Your task to perform on an android device: delete location history Image 0: 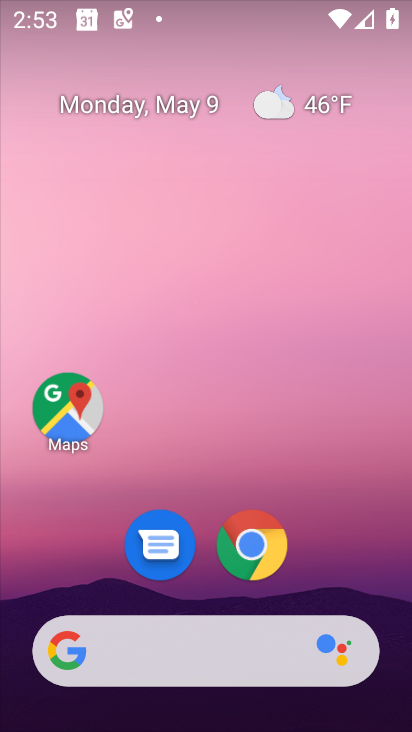
Step 0: drag from (193, 590) to (197, 251)
Your task to perform on an android device: delete location history Image 1: 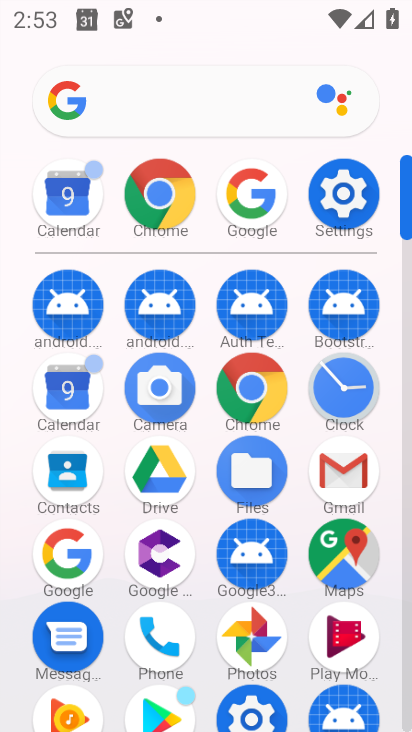
Step 1: click (325, 545)
Your task to perform on an android device: delete location history Image 2: 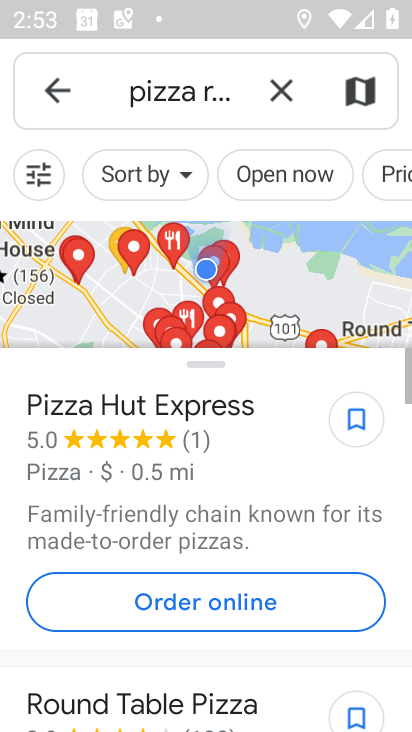
Step 2: click (45, 81)
Your task to perform on an android device: delete location history Image 3: 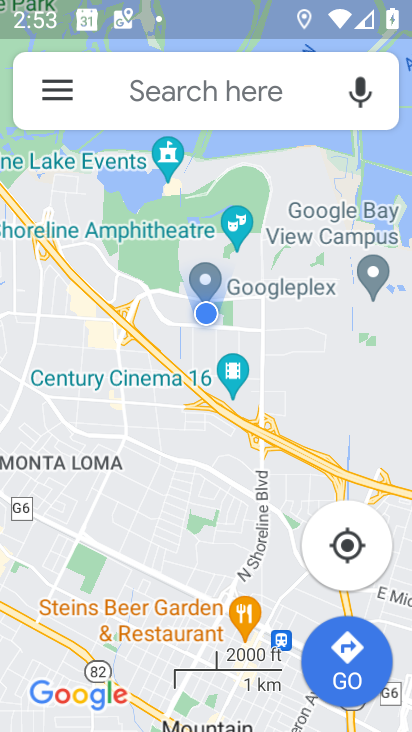
Step 3: click (45, 81)
Your task to perform on an android device: delete location history Image 4: 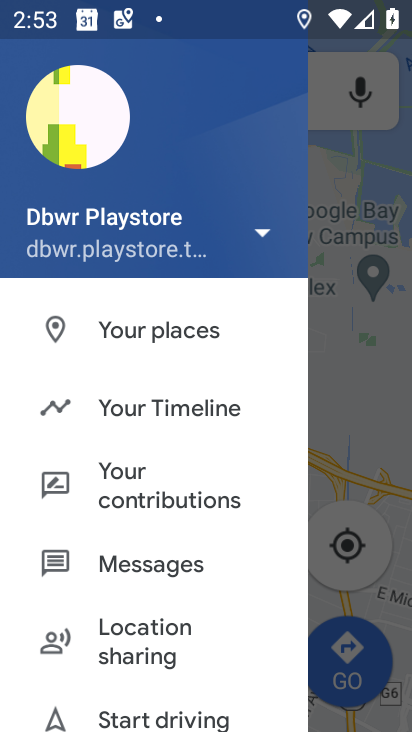
Step 4: click (136, 401)
Your task to perform on an android device: delete location history Image 5: 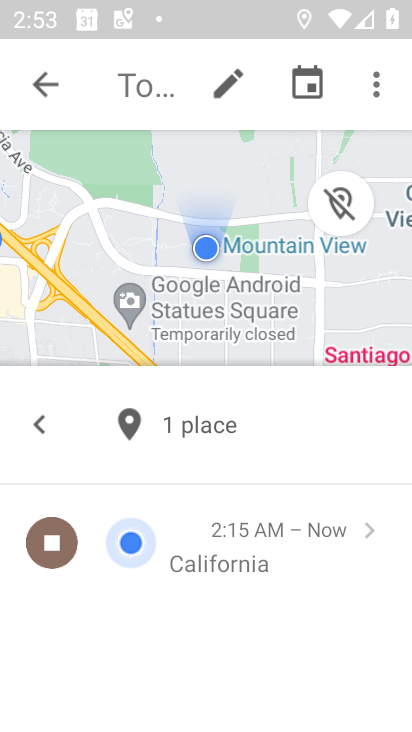
Step 5: click (384, 86)
Your task to perform on an android device: delete location history Image 6: 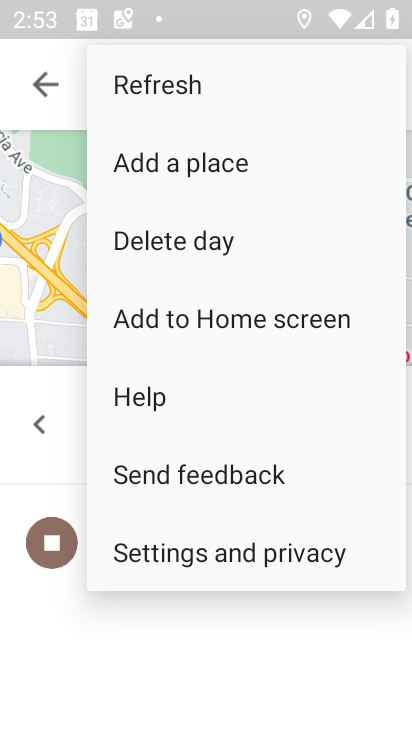
Step 6: click (240, 557)
Your task to perform on an android device: delete location history Image 7: 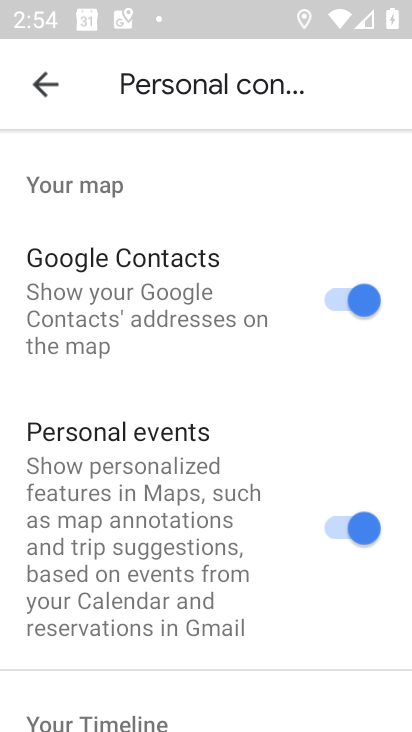
Step 7: drag from (227, 612) to (262, 258)
Your task to perform on an android device: delete location history Image 8: 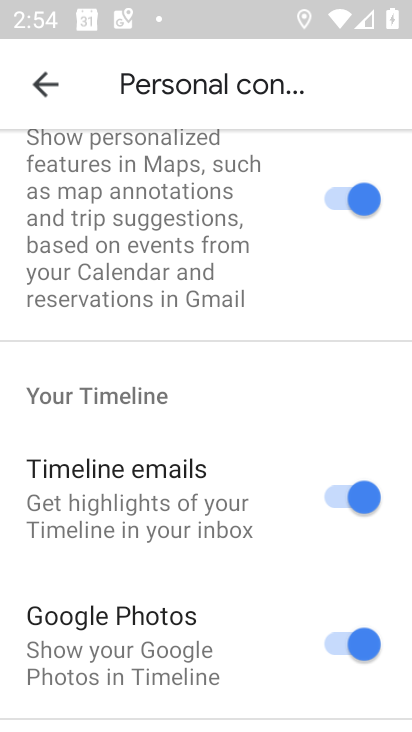
Step 8: drag from (262, 605) to (302, 339)
Your task to perform on an android device: delete location history Image 9: 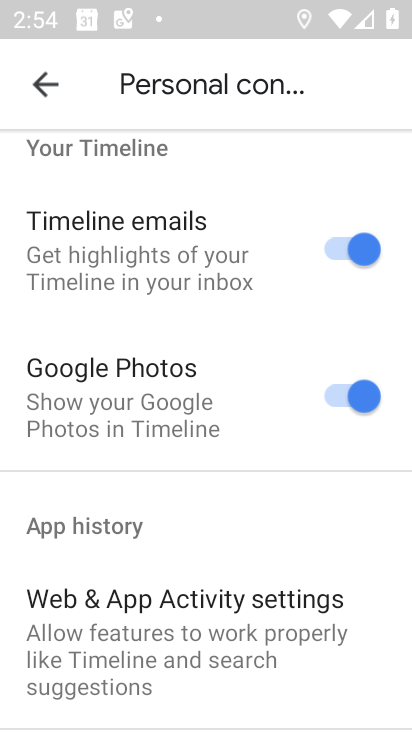
Step 9: drag from (265, 523) to (300, 341)
Your task to perform on an android device: delete location history Image 10: 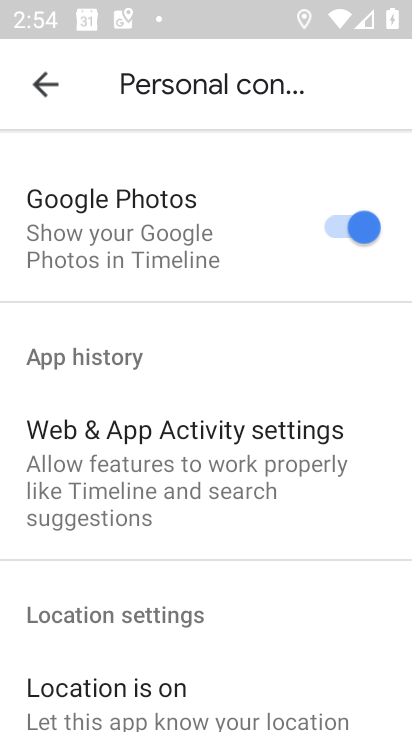
Step 10: drag from (280, 566) to (304, 369)
Your task to perform on an android device: delete location history Image 11: 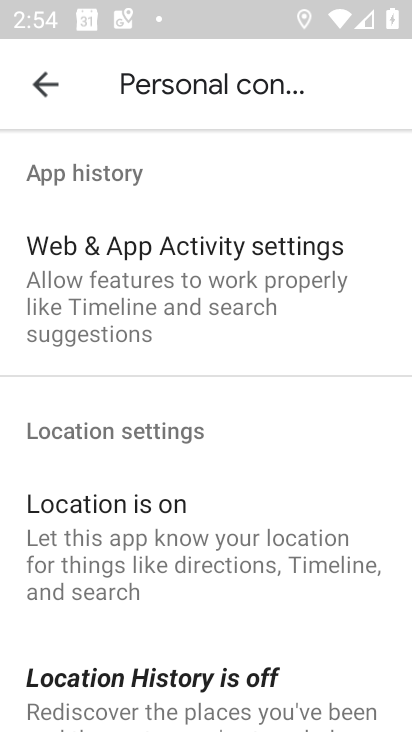
Step 11: drag from (258, 556) to (319, 258)
Your task to perform on an android device: delete location history Image 12: 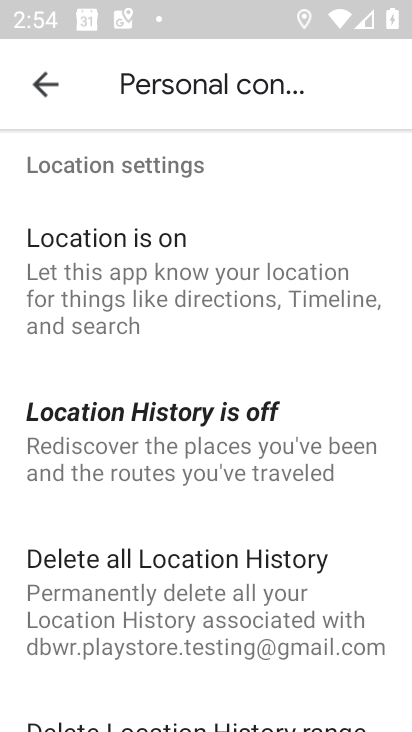
Step 12: click (289, 604)
Your task to perform on an android device: delete location history Image 13: 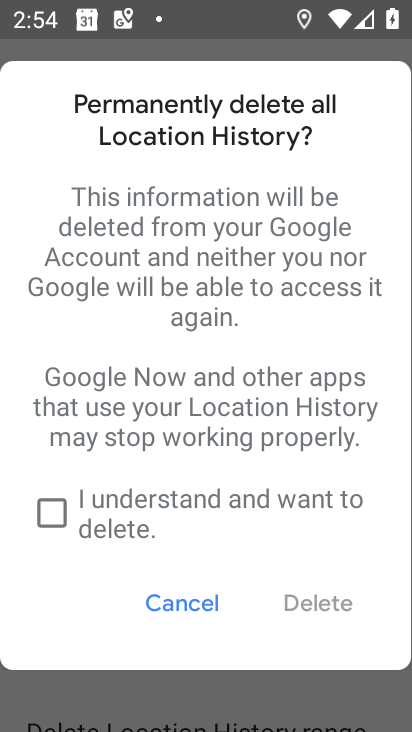
Step 13: click (116, 514)
Your task to perform on an android device: delete location history Image 14: 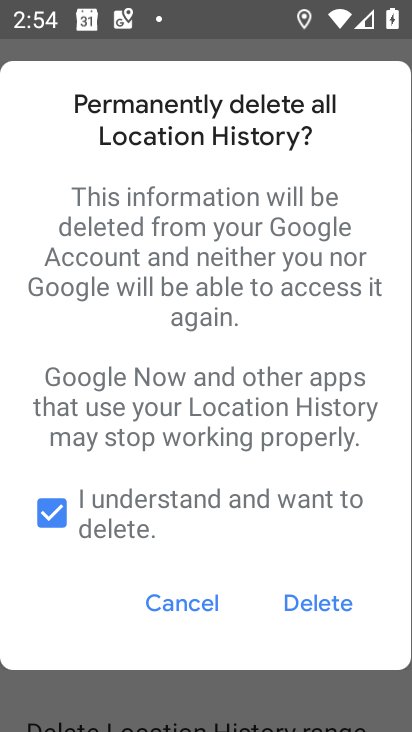
Step 14: click (309, 612)
Your task to perform on an android device: delete location history Image 15: 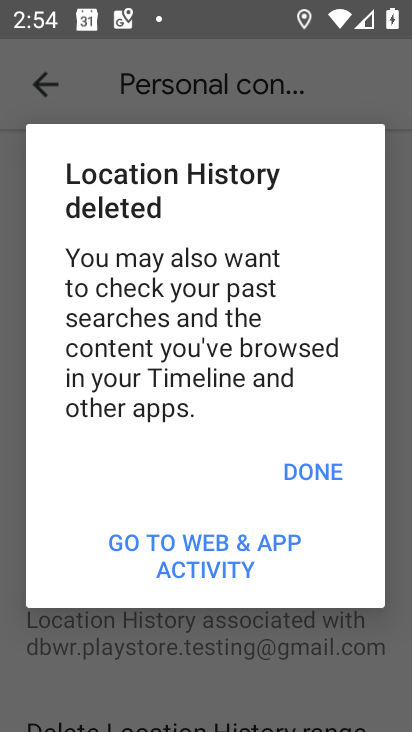
Step 15: click (312, 476)
Your task to perform on an android device: delete location history Image 16: 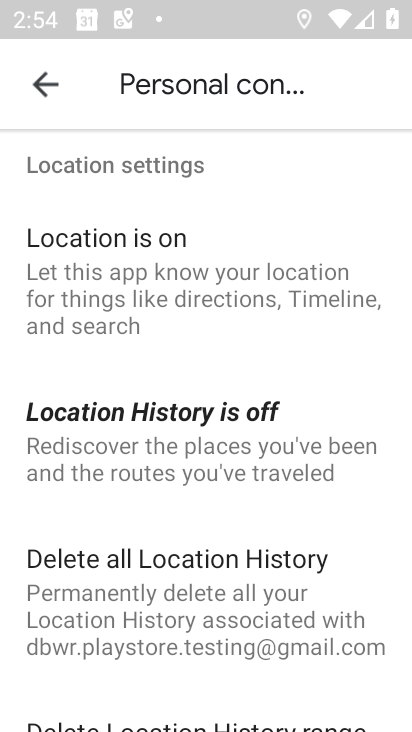
Step 16: task complete